Your task to perform on an android device: What's on the menu at Cheesecake Factory? Image 0: 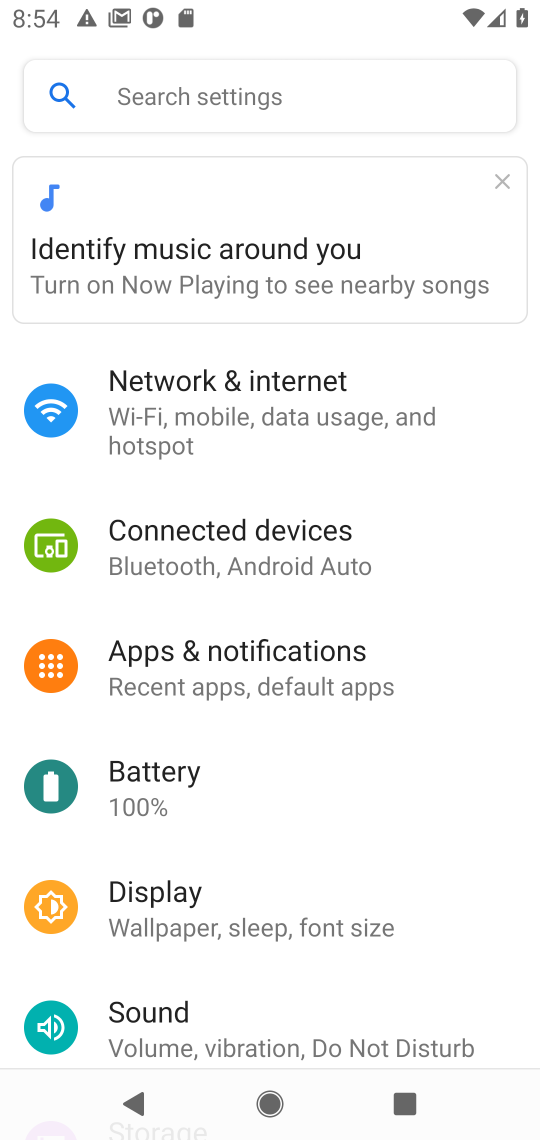
Step 0: press home button
Your task to perform on an android device: What's on the menu at Cheesecake Factory? Image 1: 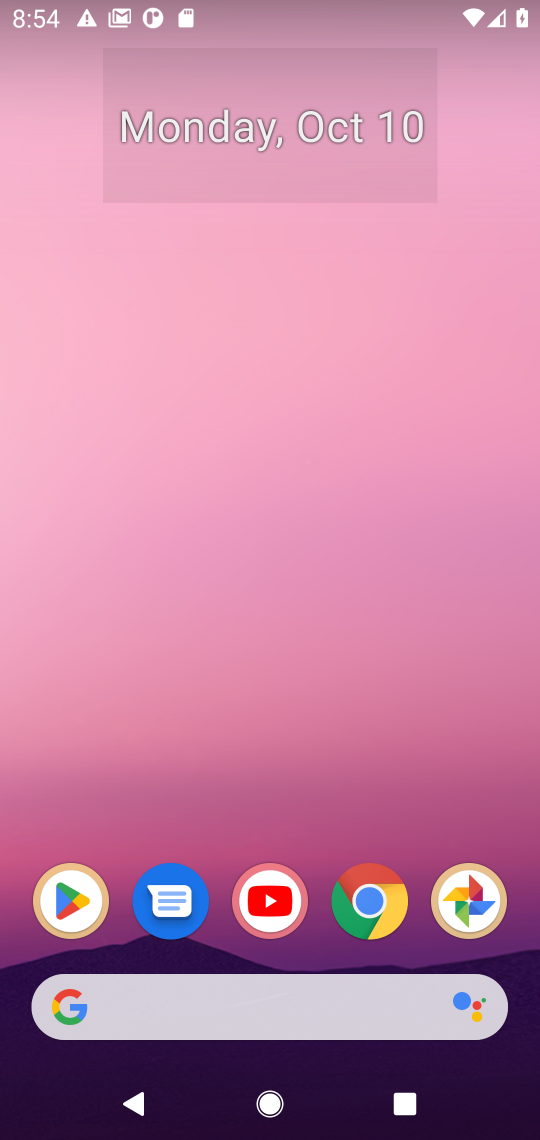
Step 1: click (221, 1005)
Your task to perform on an android device: What's on the menu at Cheesecake Factory? Image 2: 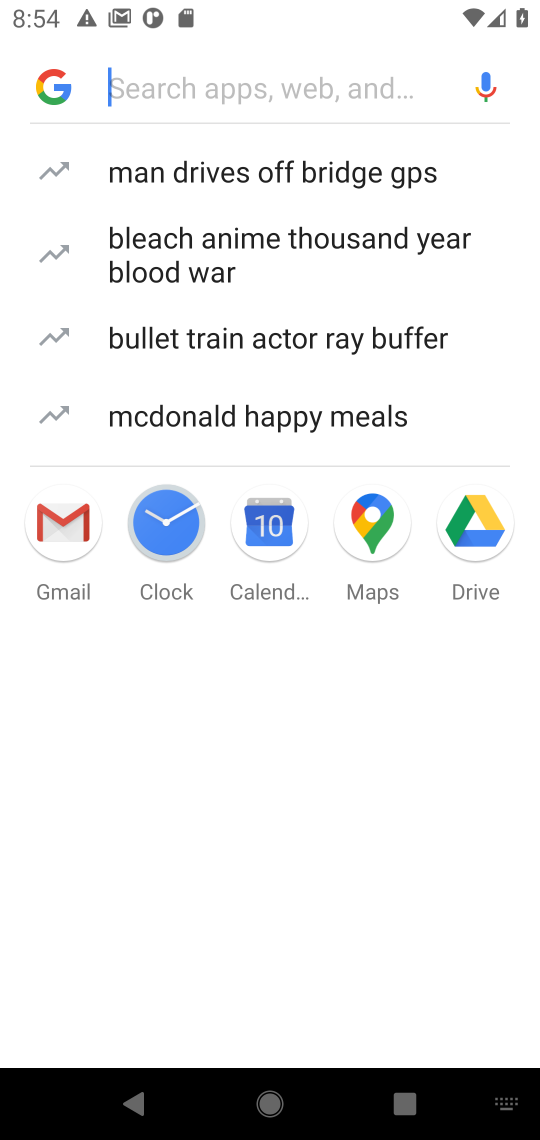
Step 2: press enter
Your task to perform on an android device: What's on the menu at Cheesecake Factory? Image 3: 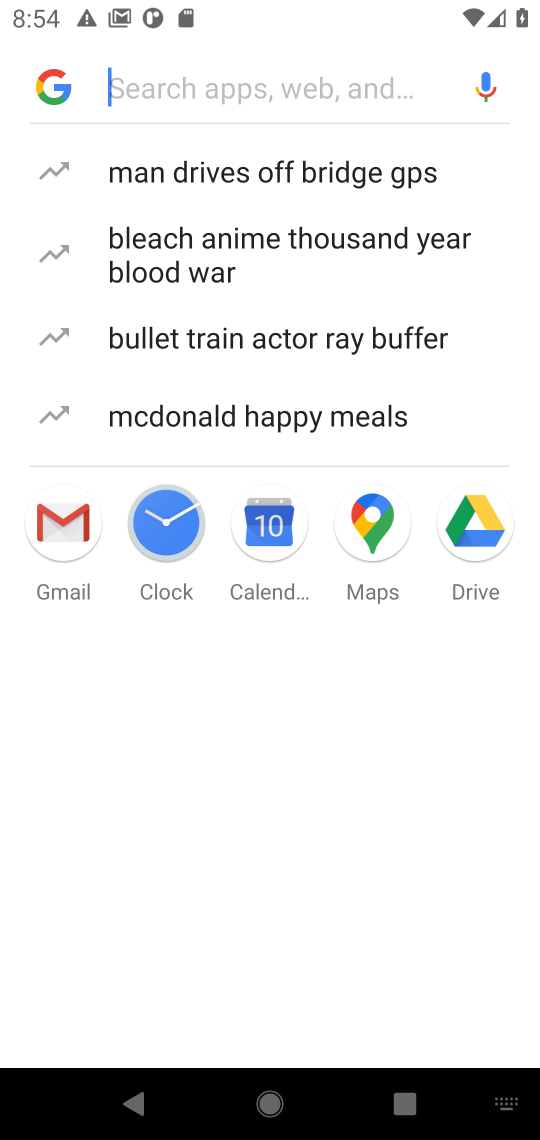
Step 3: type "What's on the menu at Cheesecake Factory"
Your task to perform on an android device: What's on the menu at Cheesecake Factory? Image 4: 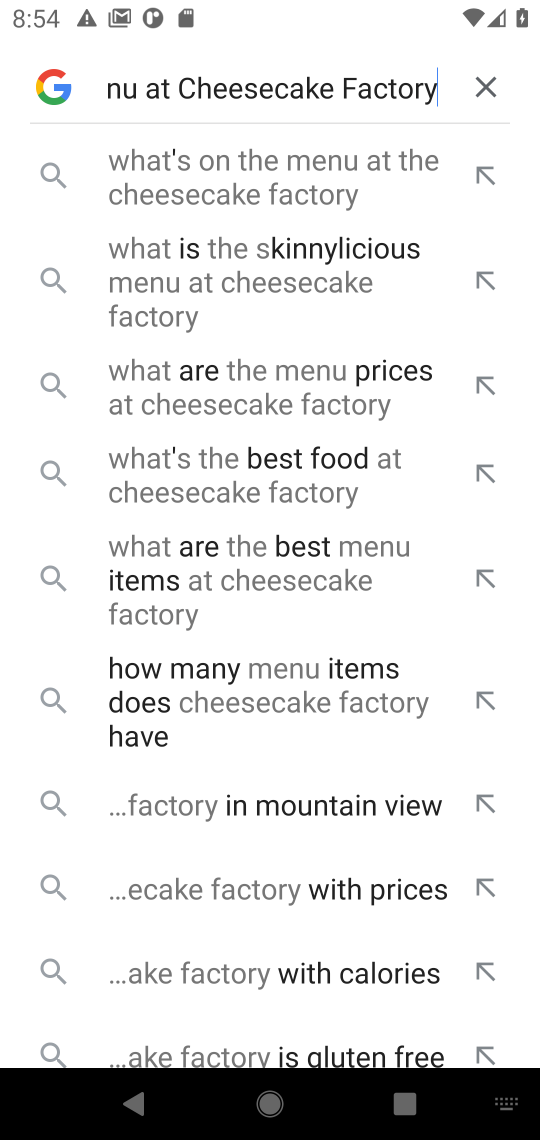
Step 4: press enter
Your task to perform on an android device: What's on the menu at Cheesecake Factory? Image 5: 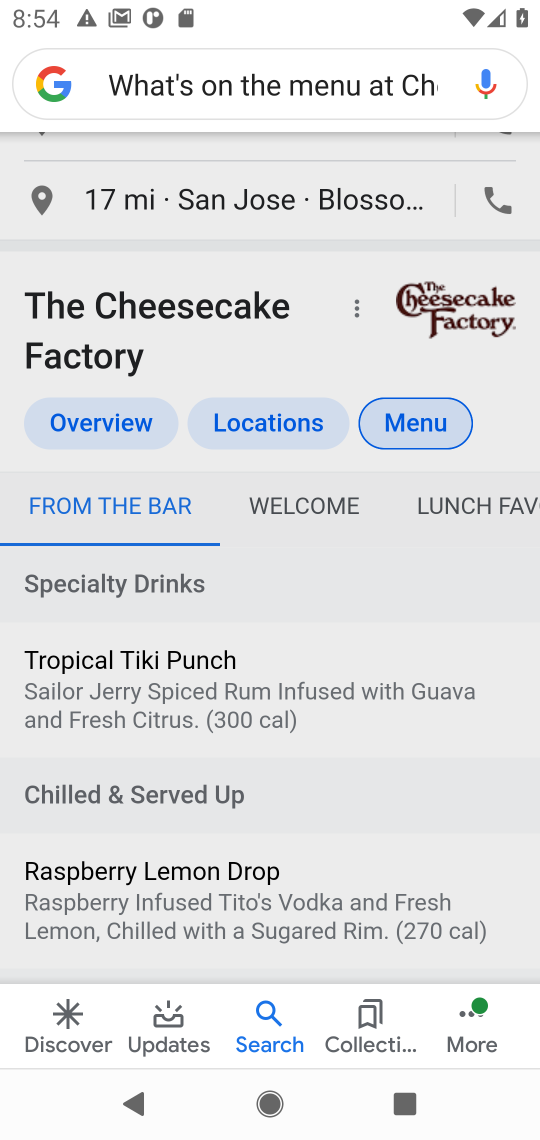
Step 5: drag from (405, 840) to (410, 509)
Your task to perform on an android device: What's on the menu at Cheesecake Factory? Image 6: 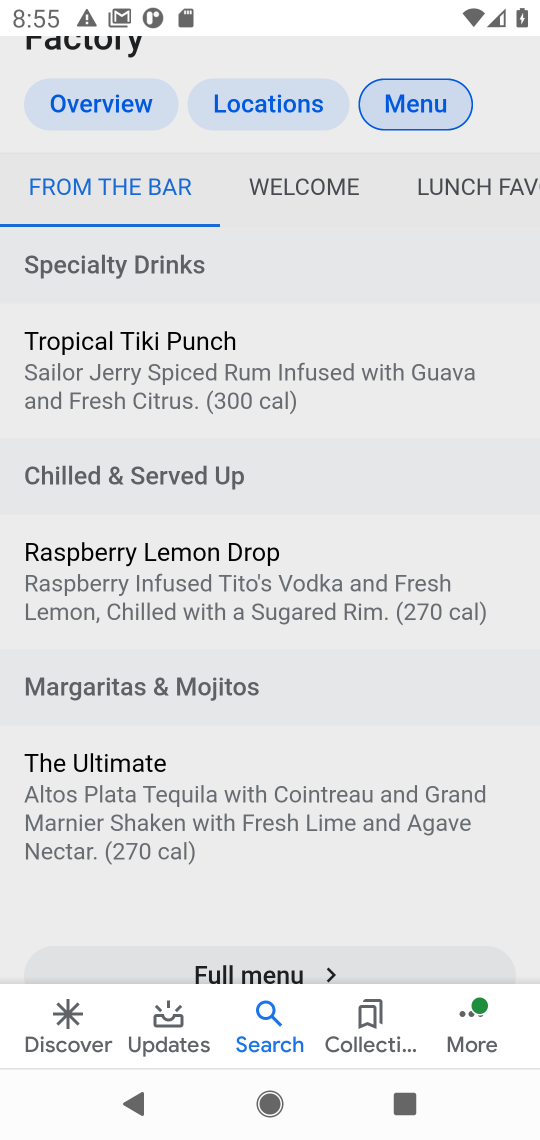
Step 6: drag from (334, 844) to (331, 456)
Your task to perform on an android device: What's on the menu at Cheesecake Factory? Image 7: 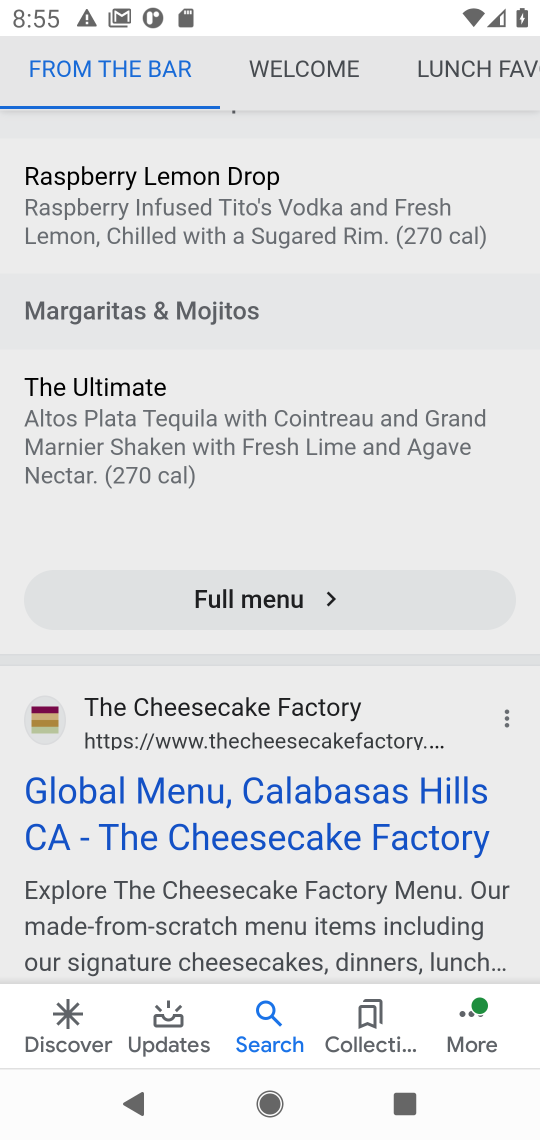
Step 7: click (263, 606)
Your task to perform on an android device: What's on the menu at Cheesecake Factory? Image 8: 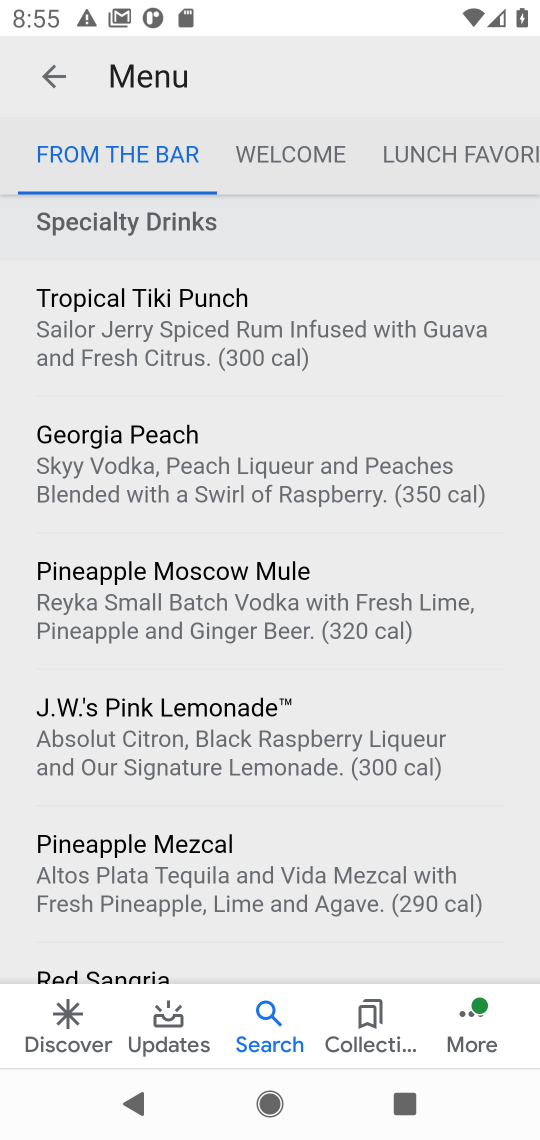
Step 8: task complete